Your task to perform on an android device: all mails in gmail Image 0: 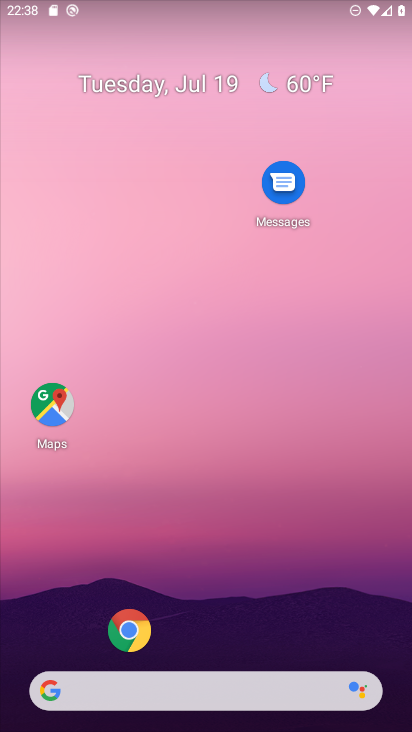
Step 0: drag from (42, 681) to (259, 45)
Your task to perform on an android device: all mails in gmail Image 1: 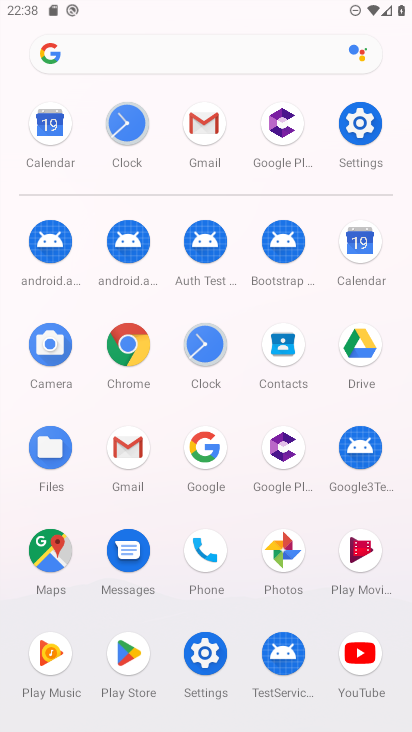
Step 1: click (104, 435)
Your task to perform on an android device: all mails in gmail Image 2: 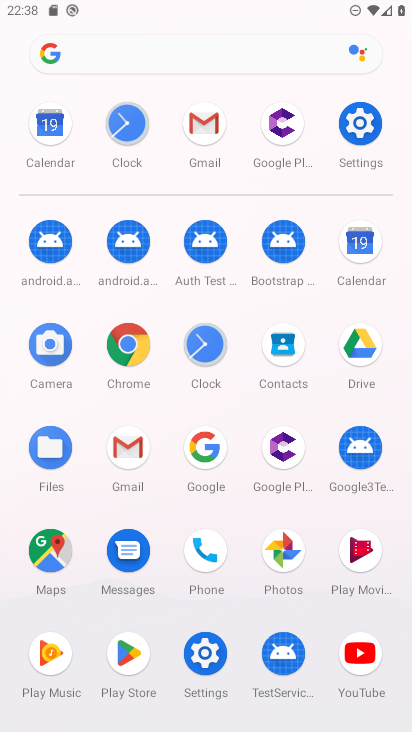
Step 2: click (117, 448)
Your task to perform on an android device: all mails in gmail Image 3: 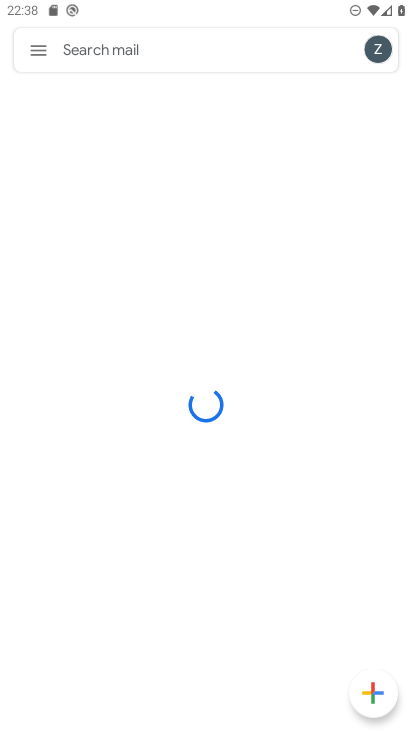
Step 3: click (28, 44)
Your task to perform on an android device: all mails in gmail Image 4: 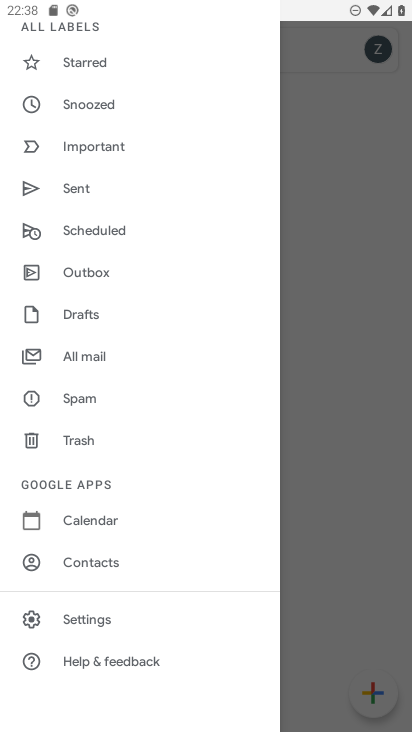
Step 4: click (86, 350)
Your task to perform on an android device: all mails in gmail Image 5: 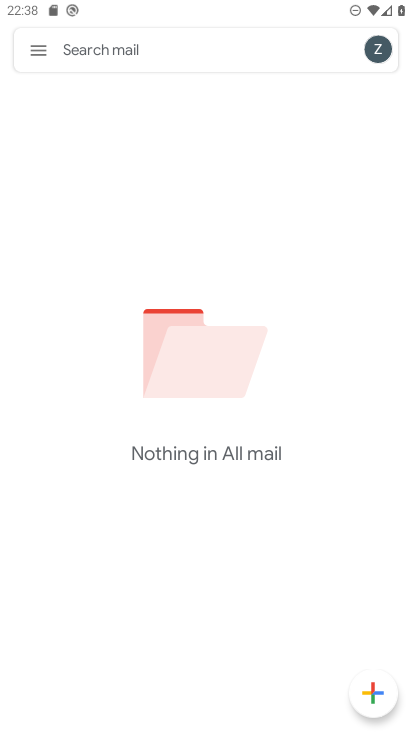
Step 5: task complete